Your task to perform on an android device: set the timer Image 0: 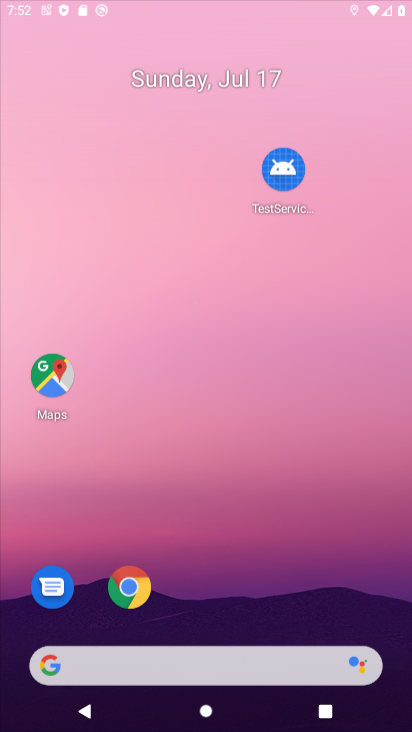
Step 0: press home button
Your task to perform on an android device: set the timer Image 1: 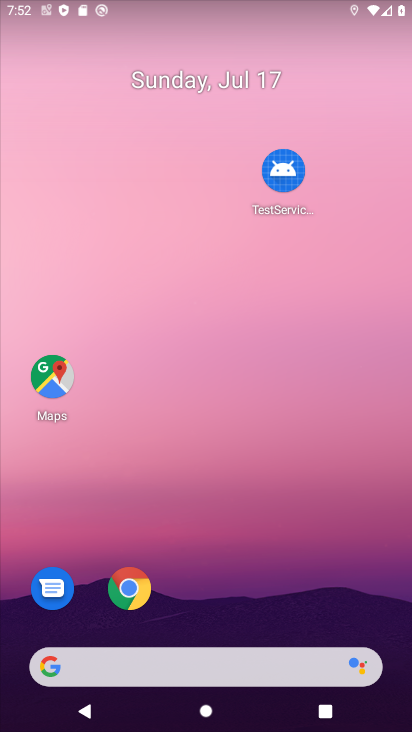
Step 1: drag from (238, 669) to (320, 221)
Your task to perform on an android device: set the timer Image 2: 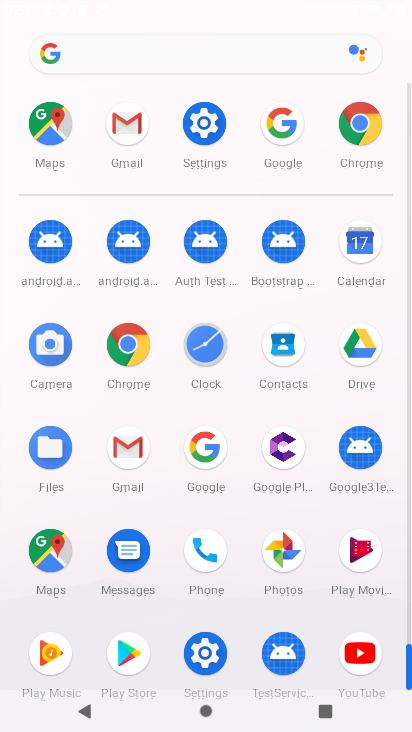
Step 2: click (216, 352)
Your task to perform on an android device: set the timer Image 3: 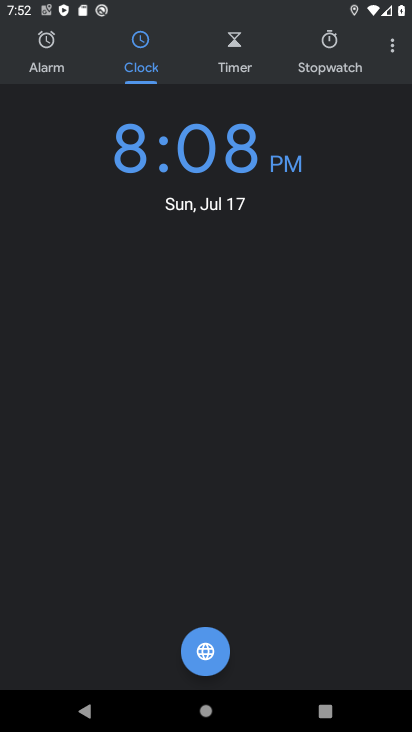
Step 3: click (246, 75)
Your task to perform on an android device: set the timer Image 4: 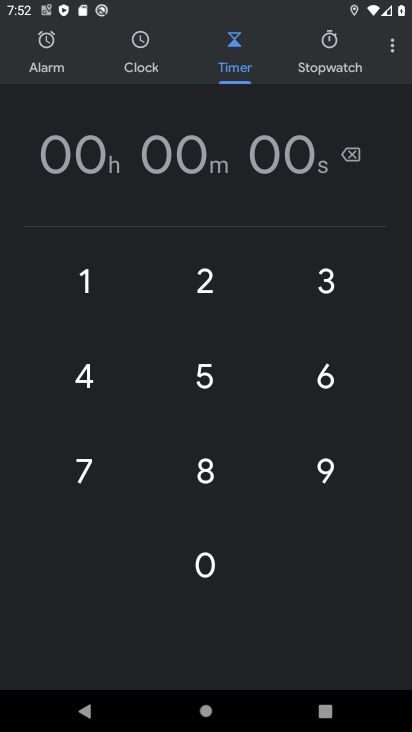
Step 4: click (220, 296)
Your task to perform on an android device: set the timer Image 5: 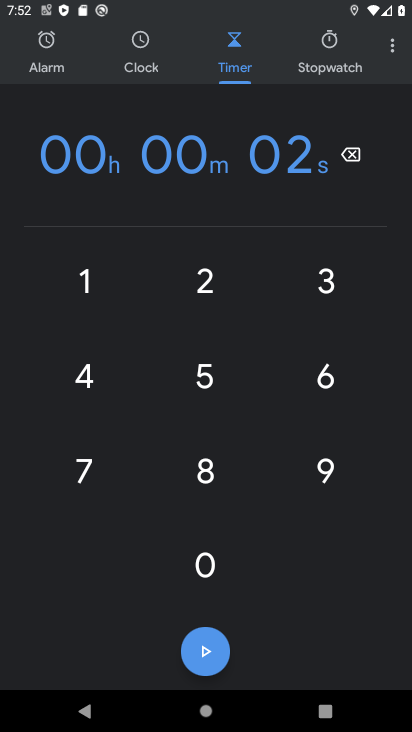
Step 5: click (223, 647)
Your task to perform on an android device: set the timer Image 6: 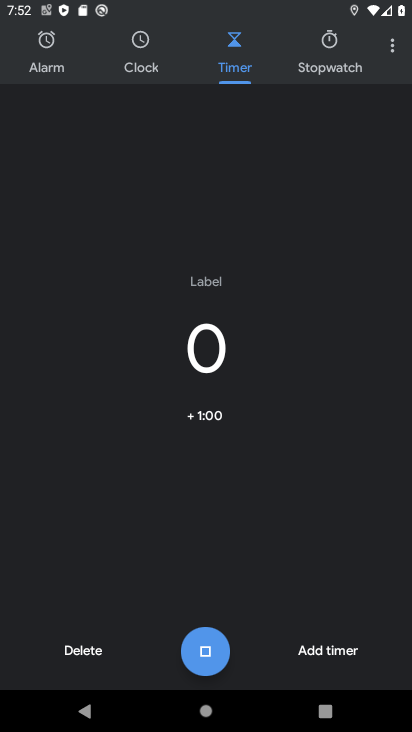
Step 6: task complete